Your task to perform on an android device: Open privacy settings Image 0: 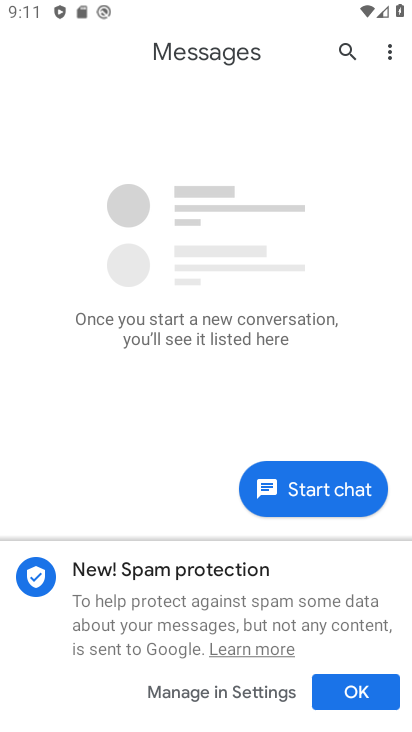
Step 0: press home button
Your task to perform on an android device: Open privacy settings Image 1: 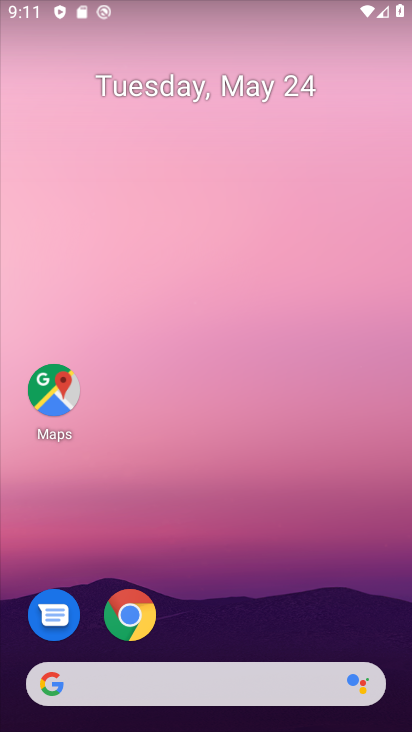
Step 1: drag from (230, 608) to (283, 36)
Your task to perform on an android device: Open privacy settings Image 2: 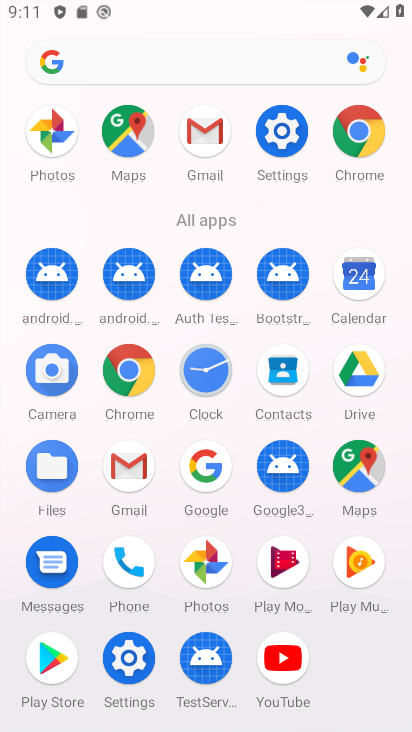
Step 2: click (278, 133)
Your task to perform on an android device: Open privacy settings Image 3: 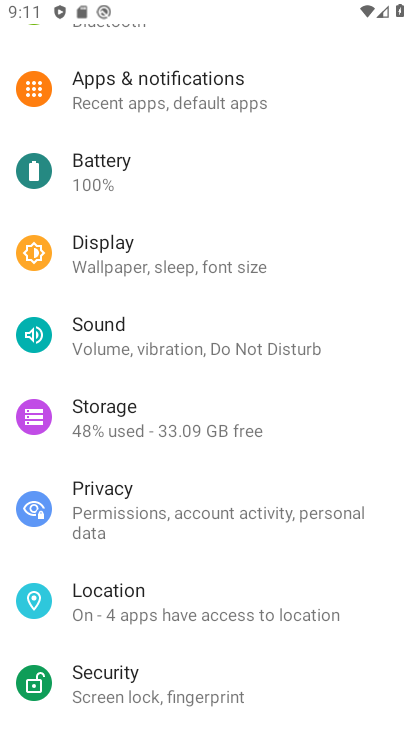
Step 3: click (147, 495)
Your task to perform on an android device: Open privacy settings Image 4: 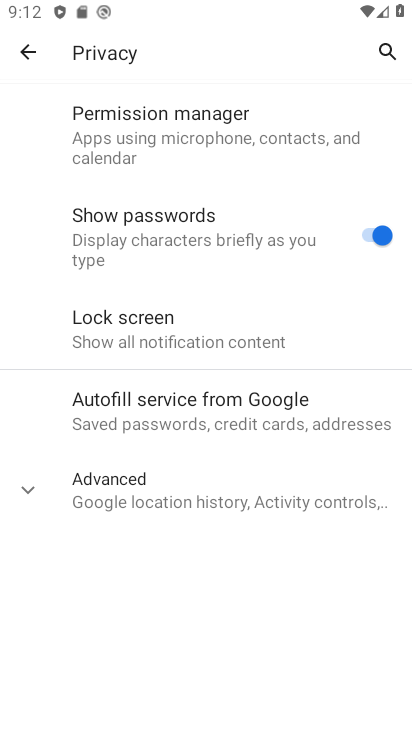
Step 4: task complete